Your task to perform on an android device: Show me popular videos on Youtube Image 0: 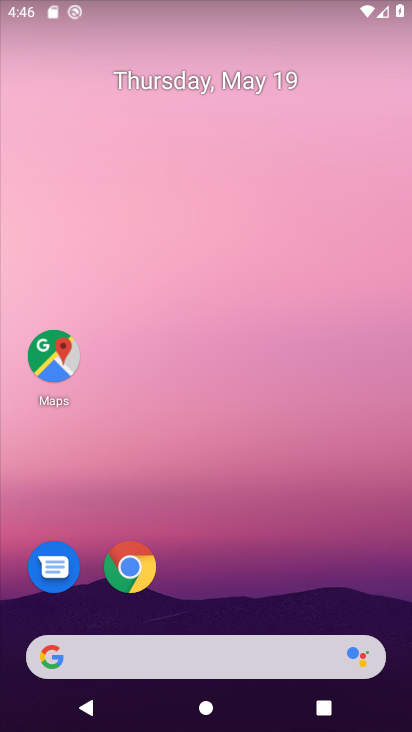
Step 0: drag from (249, 594) to (186, 108)
Your task to perform on an android device: Show me popular videos on Youtube Image 1: 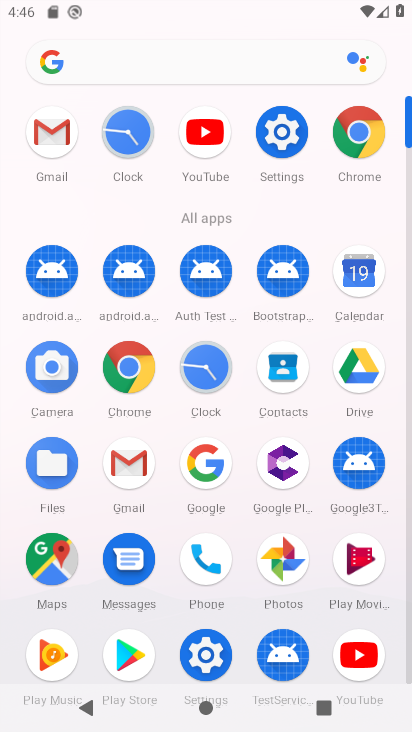
Step 1: click (203, 135)
Your task to perform on an android device: Show me popular videos on Youtube Image 2: 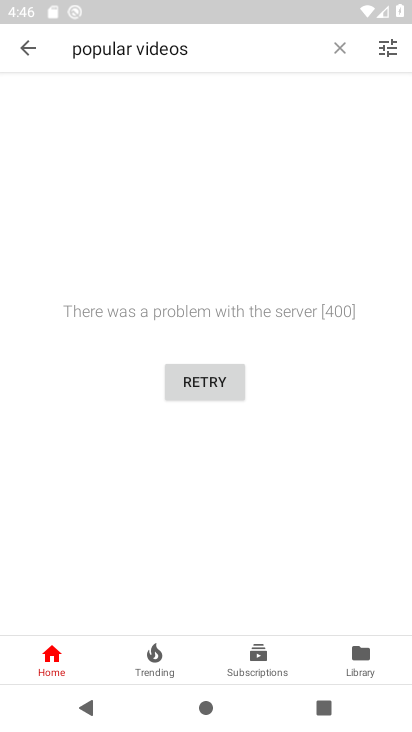
Step 2: click (199, 382)
Your task to perform on an android device: Show me popular videos on Youtube Image 3: 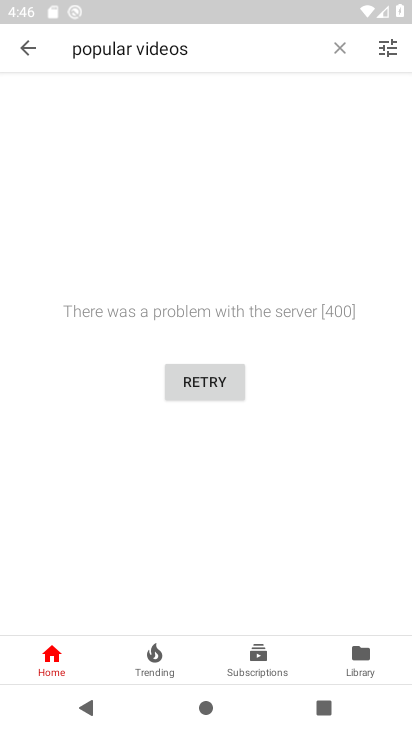
Step 3: click (199, 382)
Your task to perform on an android device: Show me popular videos on Youtube Image 4: 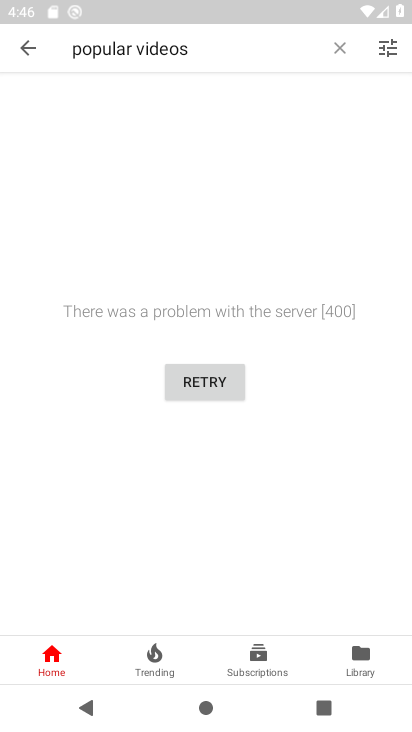
Step 4: task complete